Your task to perform on an android device: Open sound settings Image 0: 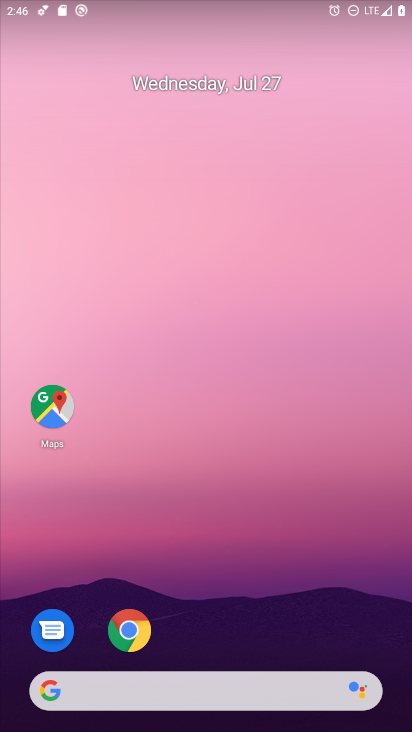
Step 0: drag from (391, 636) to (332, 181)
Your task to perform on an android device: Open sound settings Image 1: 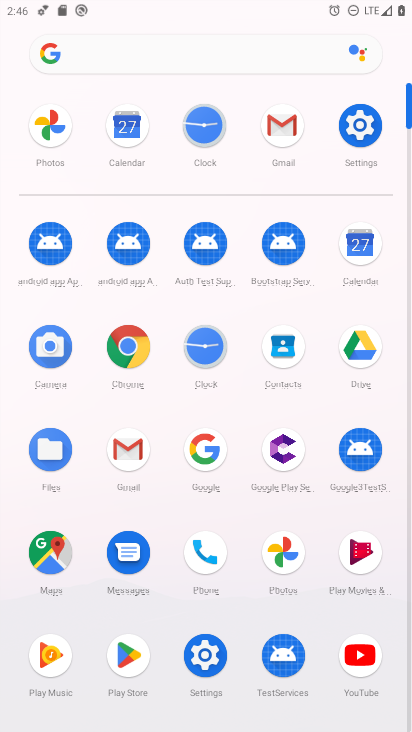
Step 1: click (206, 655)
Your task to perform on an android device: Open sound settings Image 2: 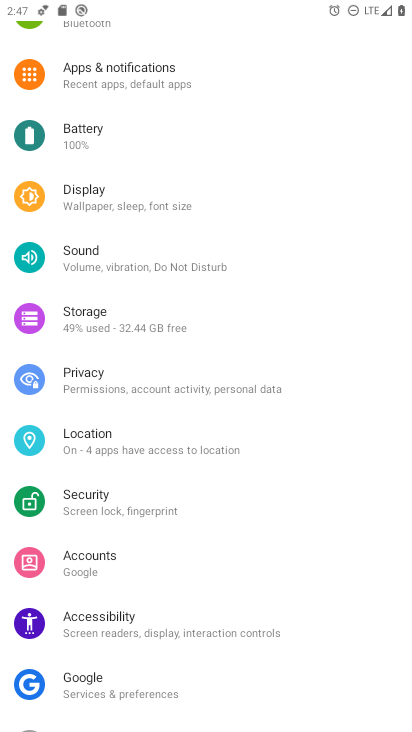
Step 2: click (80, 247)
Your task to perform on an android device: Open sound settings Image 3: 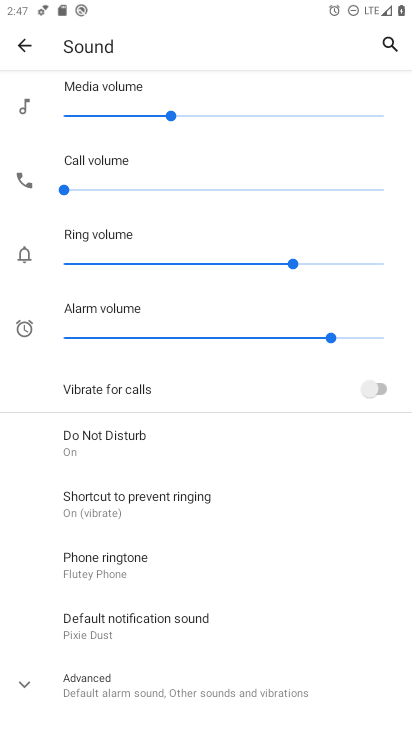
Step 3: click (23, 686)
Your task to perform on an android device: Open sound settings Image 4: 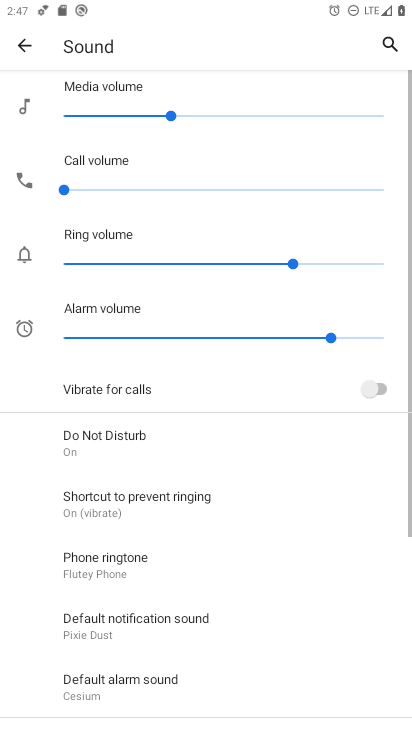
Step 4: task complete